Your task to perform on an android device: empty trash in the gmail app Image 0: 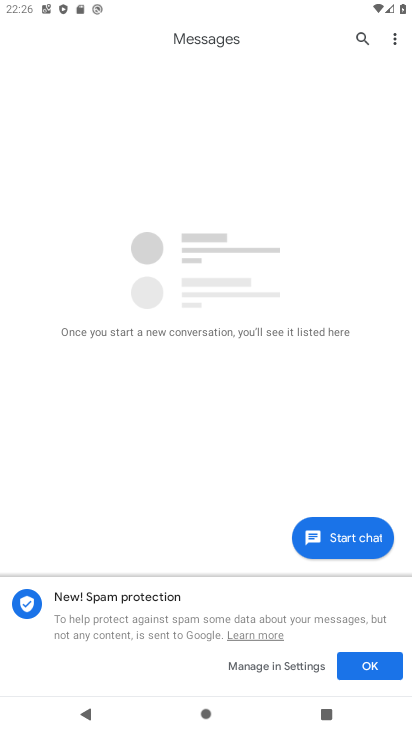
Step 0: press home button
Your task to perform on an android device: empty trash in the gmail app Image 1: 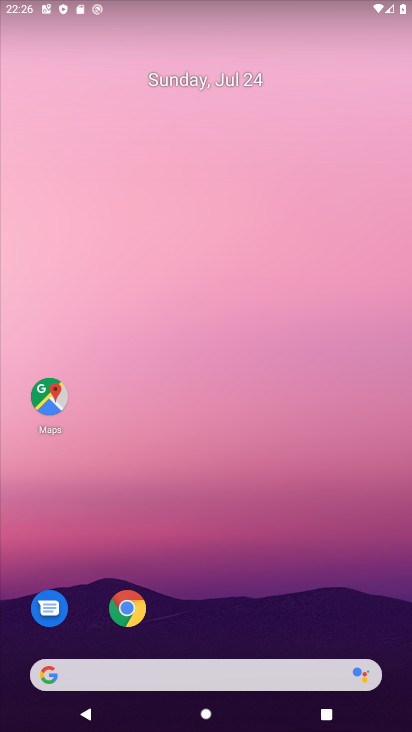
Step 1: drag from (275, 633) to (293, 0)
Your task to perform on an android device: empty trash in the gmail app Image 2: 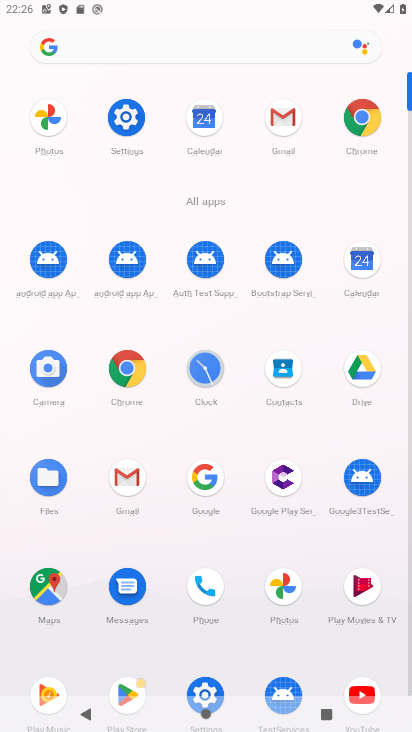
Step 2: click (291, 117)
Your task to perform on an android device: empty trash in the gmail app Image 3: 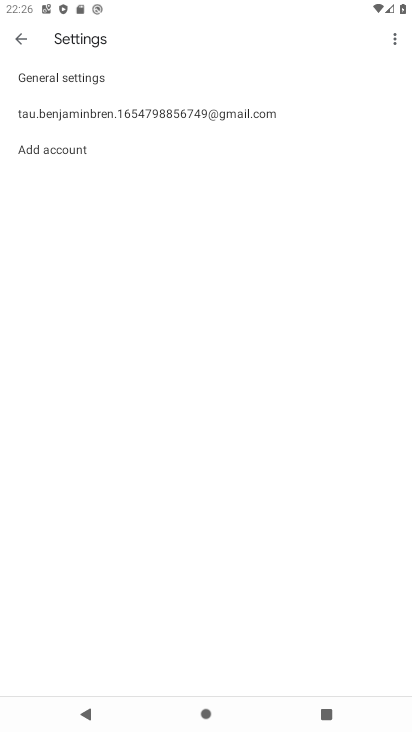
Step 3: click (16, 38)
Your task to perform on an android device: empty trash in the gmail app Image 4: 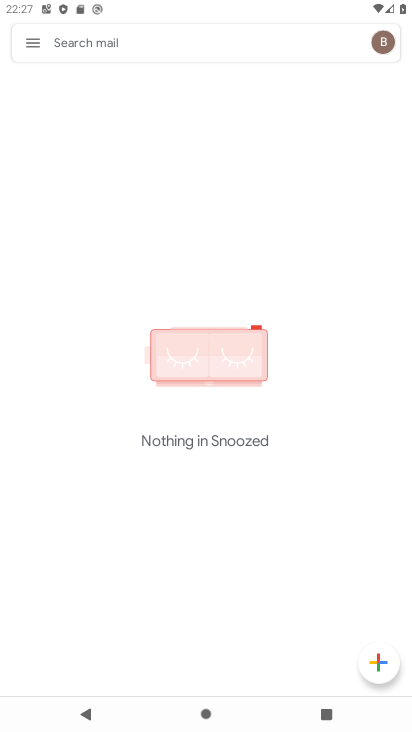
Step 4: click (36, 41)
Your task to perform on an android device: empty trash in the gmail app Image 5: 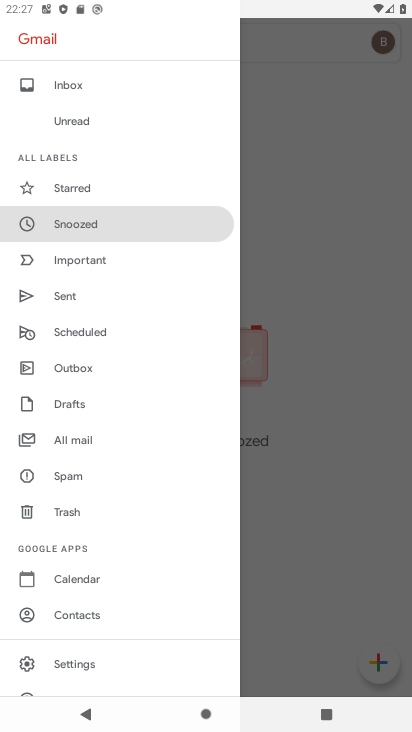
Step 5: click (84, 512)
Your task to perform on an android device: empty trash in the gmail app Image 6: 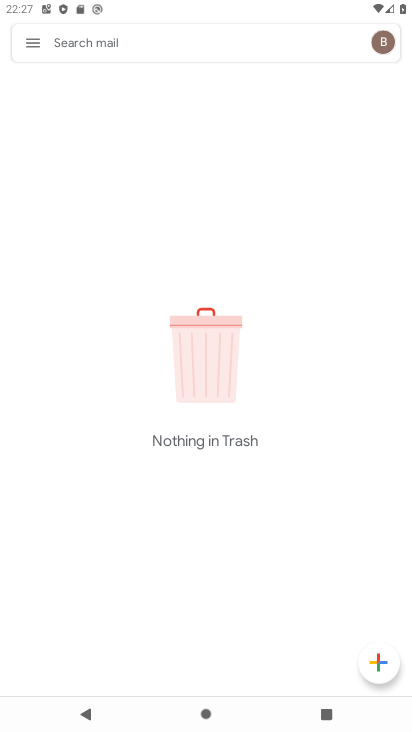
Step 6: task complete